Your task to perform on an android device: Open Google Chrome and open the bookmarks view Image 0: 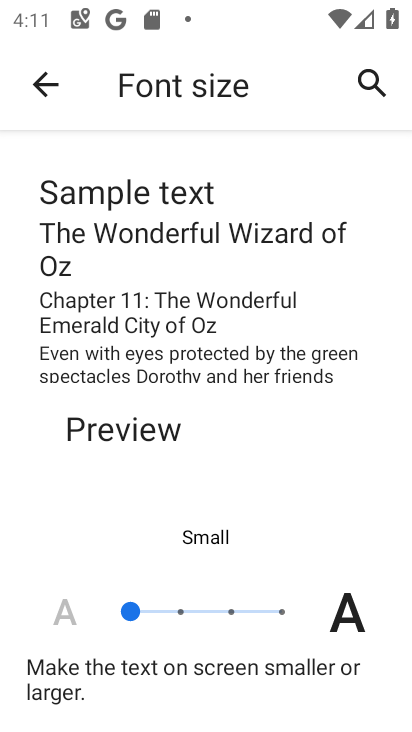
Step 0: press home button
Your task to perform on an android device: Open Google Chrome and open the bookmarks view Image 1: 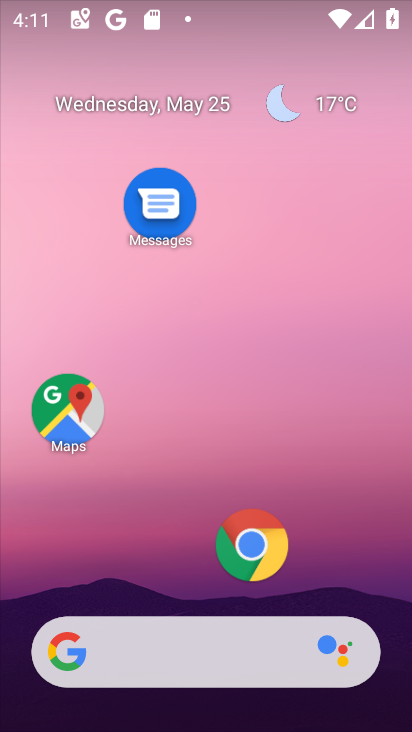
Step 1: click (252, 552)
Your task to perform on an android device: Open Google Chrome and open the bookmarks view Image 2: 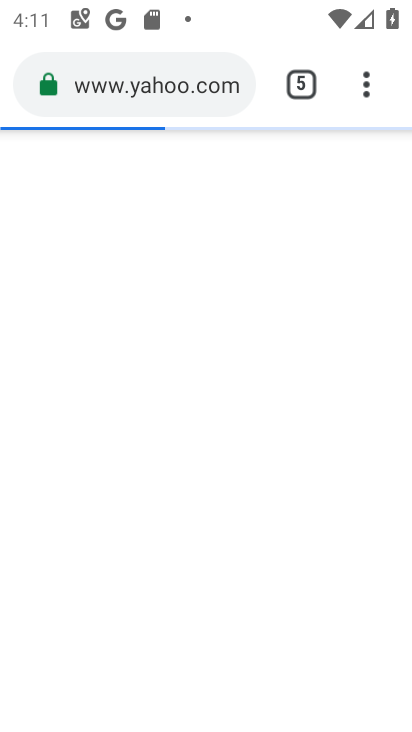
Step 2: click (377, 75)
Your task to perform on an android device: Open Google Chrome and open the bookmarks view Image 3: 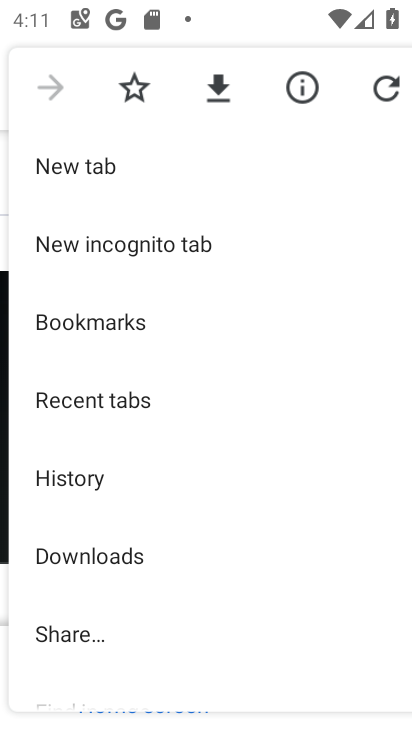
Step 3: click (126, 318)
Your task to perform on an android device: Open Google Chrome and open the bookmarks view Image 4: 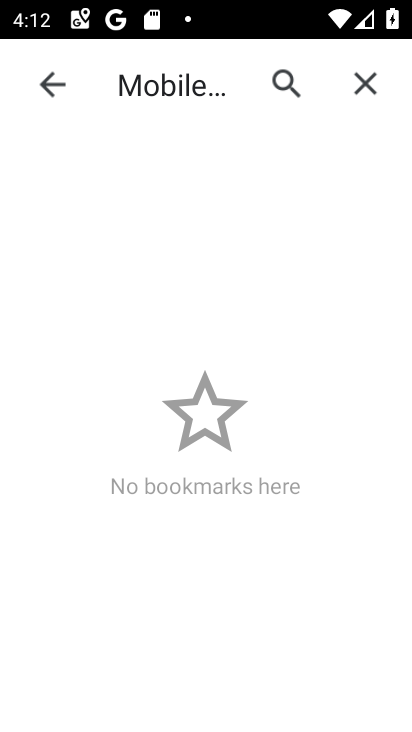
Step 4: task complete